Your task to perform on an android device: Go to calendar. Show me events next week Image 0: 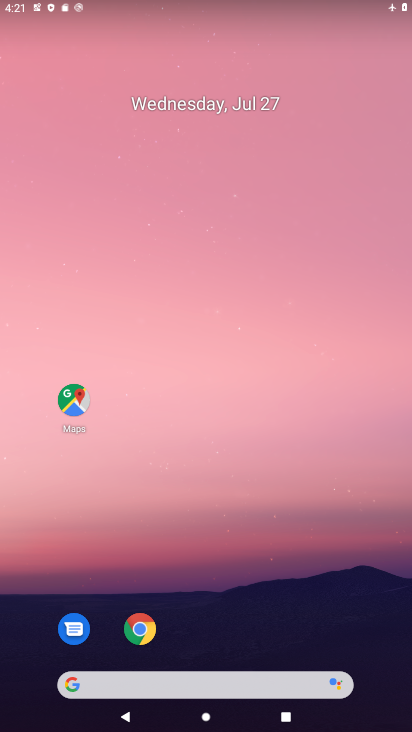
Step 0: drag from (220, 663) to (296, 39)
Your task to perform on an android device: Go to calendar. Show me events next week Image 1: 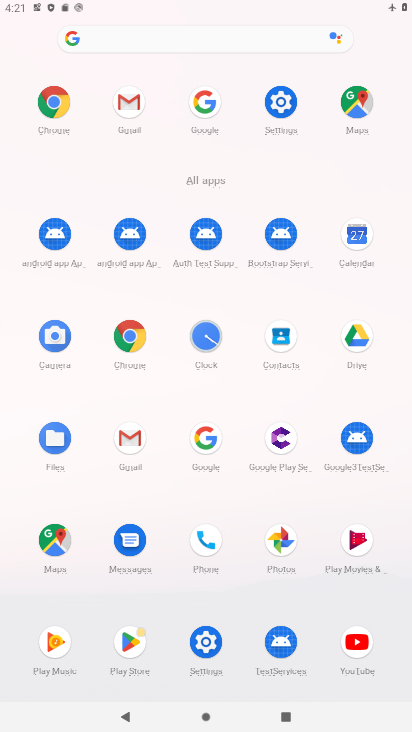
Step 1: click (345, 226)
Your task to perform on an android device: Go to calendar. Show me events next week Image 2: 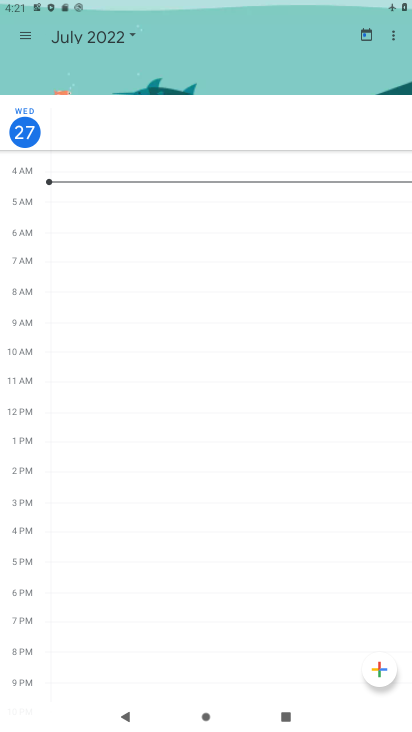
Step 2: click (27, 31)
Your task to perform on an android device: Go to calendar. Show me events next week Image 3: 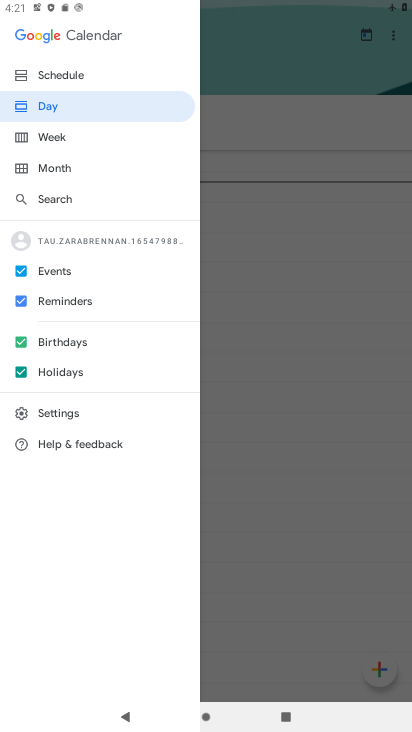
Step 3: click (59, 128)
Your task to perform on an android device: Go to calendar. Show me events next week Image 4: 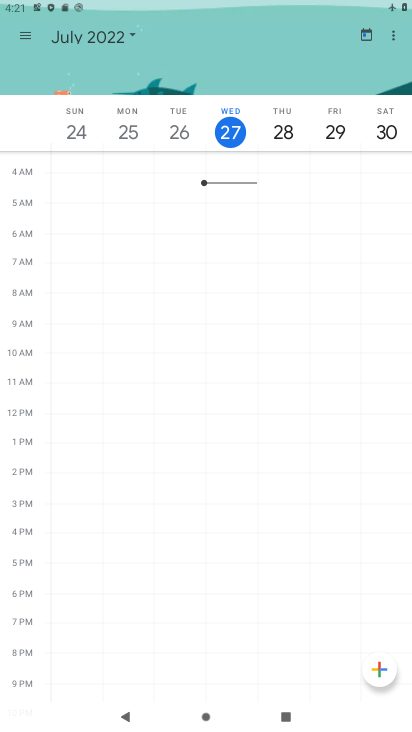
Step 4: task complete